Your task to perform on an android device: Open Amazon Image 0: 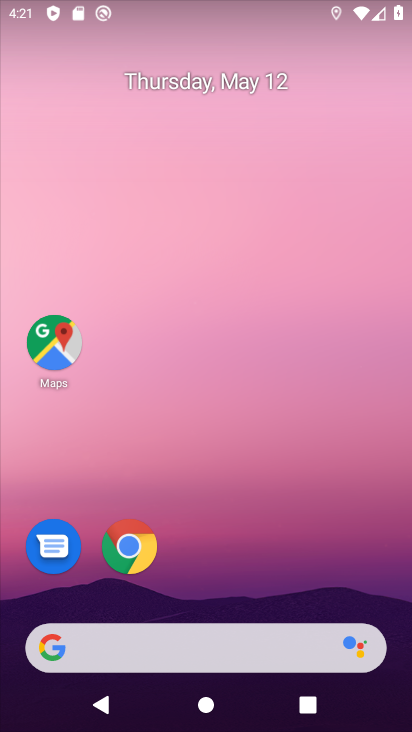
Step 0: drag from (238, 511) to (187, 1)
Your task to perform on an android device: Open Amazon Image 1: 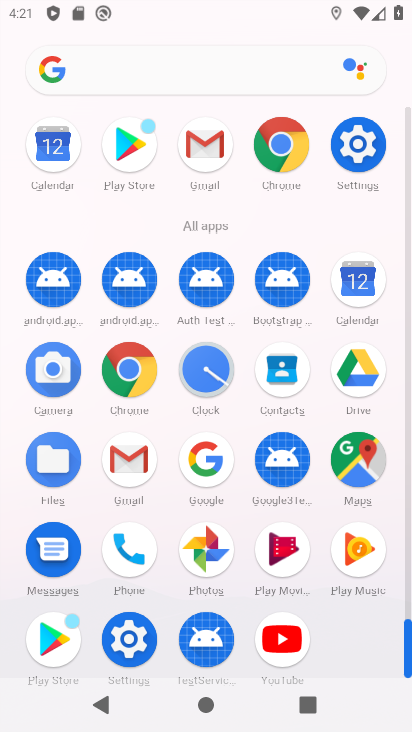
Step 1: drag from (7, 488) to (13, 286)
Your task to perform on an android device: Open Amazon Image 2: 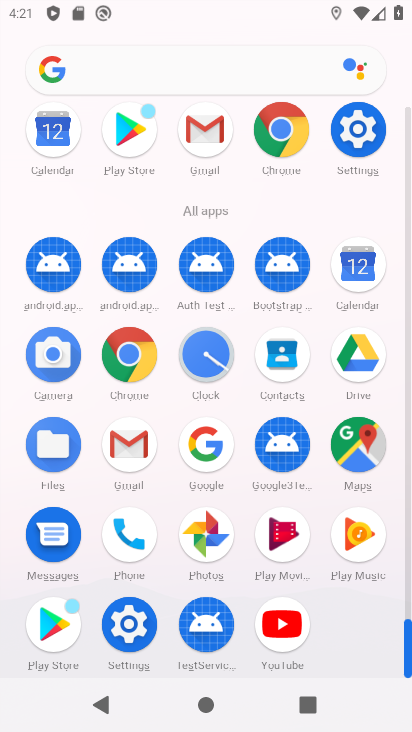
Step 2: click (133, 362)
Your task to perform on an android device: Open Amazon Image 3: 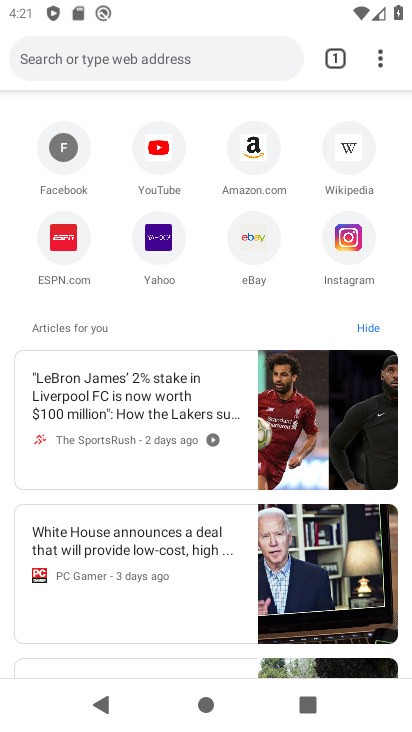
Step 3: click (244, 154)
Your task to perform on an android device: Open Amazon Image 4: 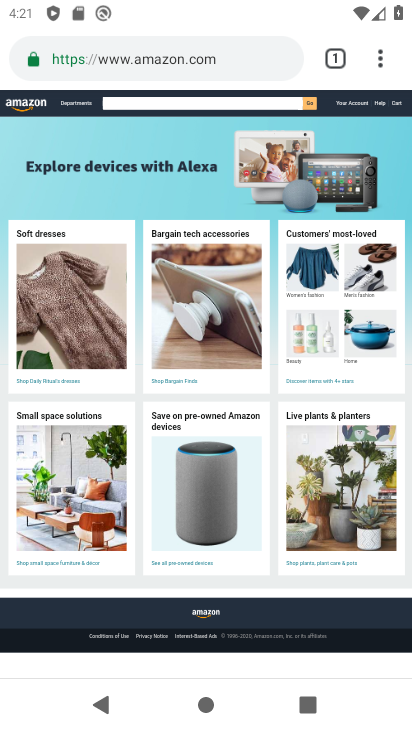
Step 4: task complete